Your task to perform on an android device: Open settings Image 0: 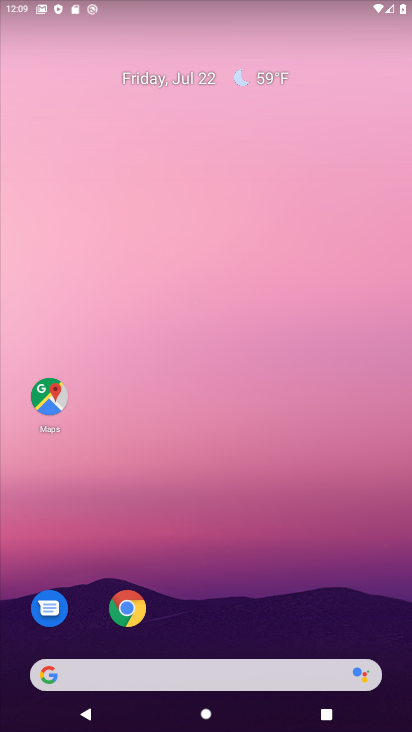
Step 0: drag from (201, 562) to (227, 86)
Your task to perform on an android device: Open settings Image 1: 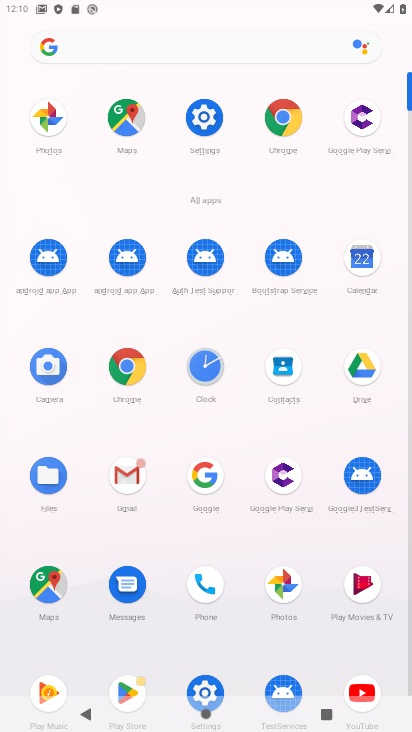
Step 1: click (211, 678)
Your task to perform on an android device: Open settings Image 2: 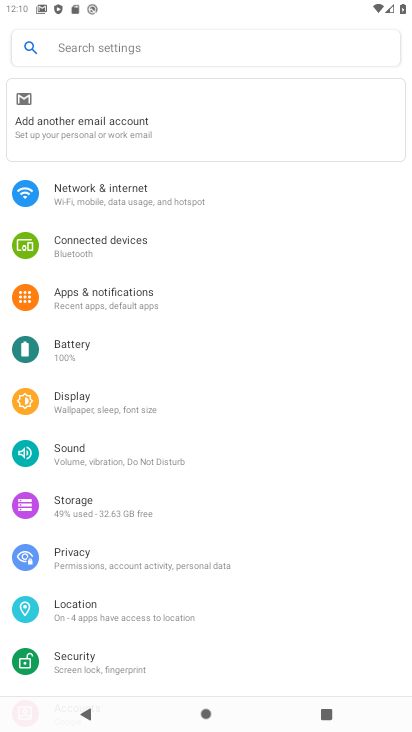
Step 2: task complete